Your task to perform on an android device: Open privacy settings Image 0: 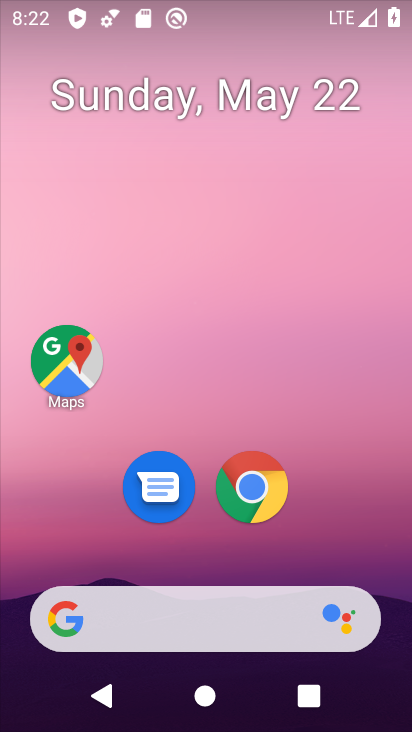
Step 0: drag from (323, 492) to (327, 2)
Your task to perform on an android device: Open privacy settings Image 1: 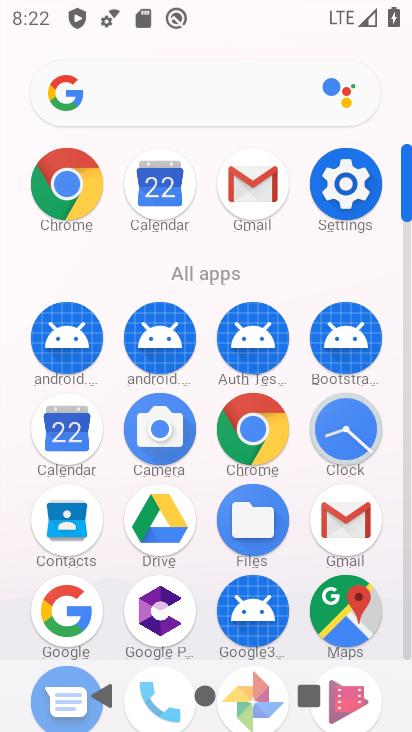
Step 1: click (356, 206)
Your task to perform on an android device: Open privacy settings Image 2: 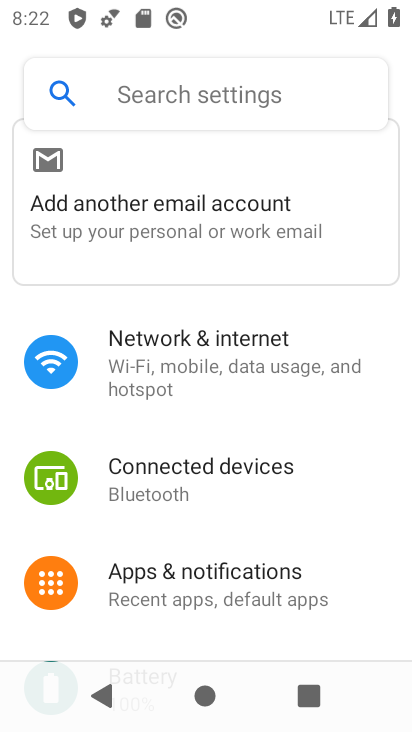
Step 2: drag from (220, 566) to (186, 154)
Your task to perform on an android device: Open privacy settings Image 3: 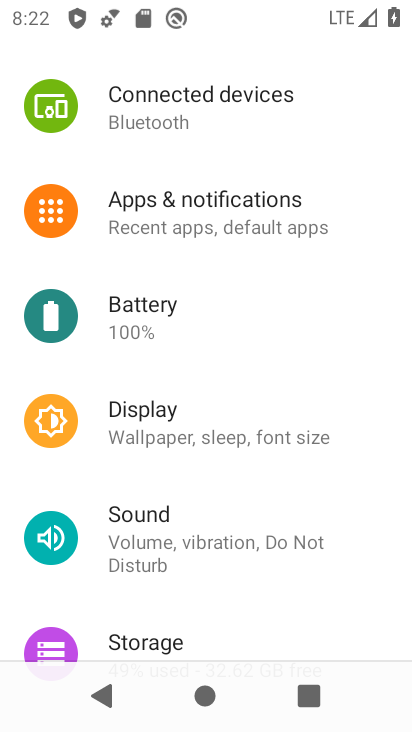
Step 3: drag from (238, 510) to (218, 161)
Your task to perform on an android device: Open privacy settings Image 4: 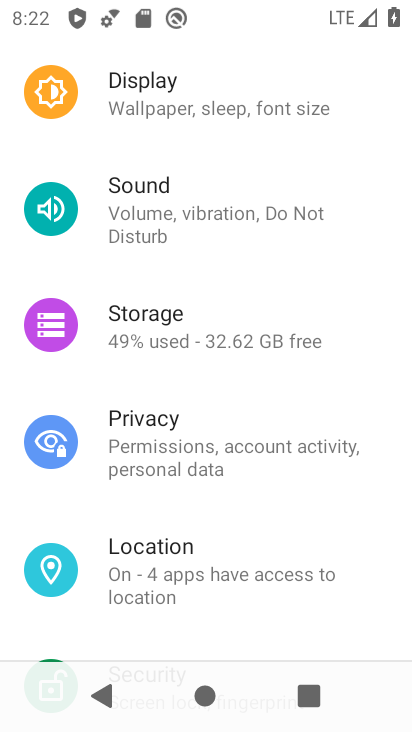
Step 4: click (166, 455)
Your task to perform on an android device: Open privacy settings Image 5: 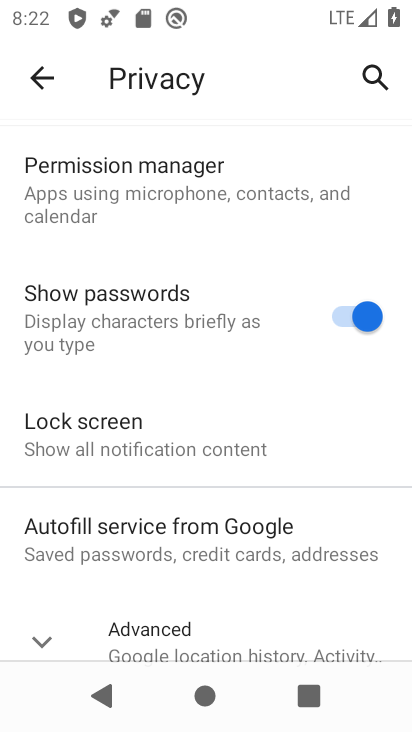
Step 5: task complete